Your task to perform on an android device: Search for seafood restaurants on Google Maps Image 0: 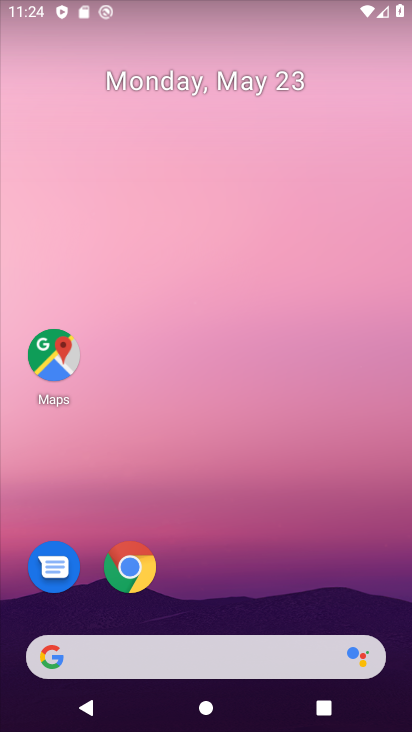
Step 0: drag from (372, 573) to (300, 151)
Your task to perform on an android device: Search for seafood restaurants on Google Maps Image 1: 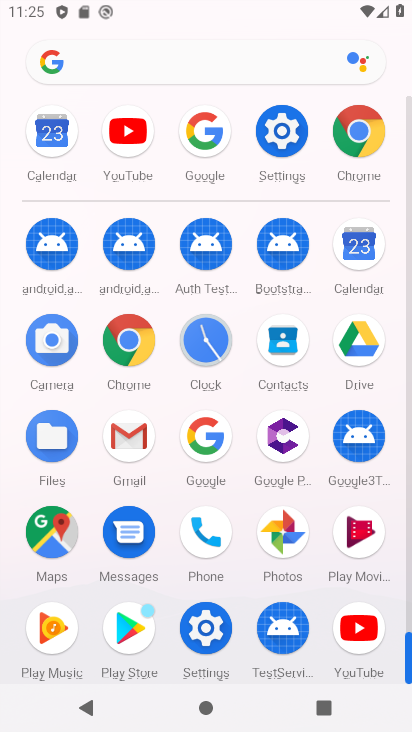
Step 1: drag from (298, 558) to (306, 256)
Your task to perform on an android device: Search for seafood restaurants on Google Maps Image 2: 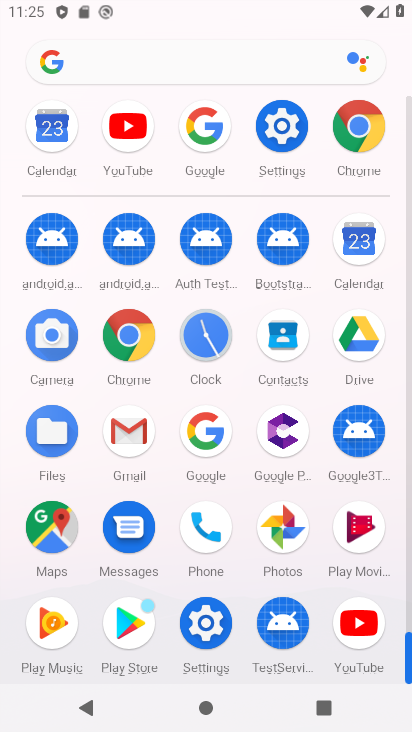
Step 2: click (58, 536)
Your task to perform on an android device: Search for seafood restaurants on Google Maps Image 3: 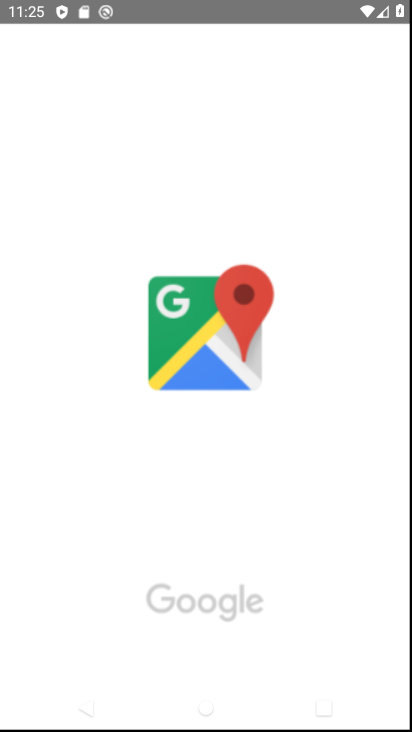
Step 3: task complete